Your task to perform on an android device: open app "Indeed Job Search" (install if not already installed) and enter user name: "quixotic@inbox.com" and password: "microphones" Image 0: 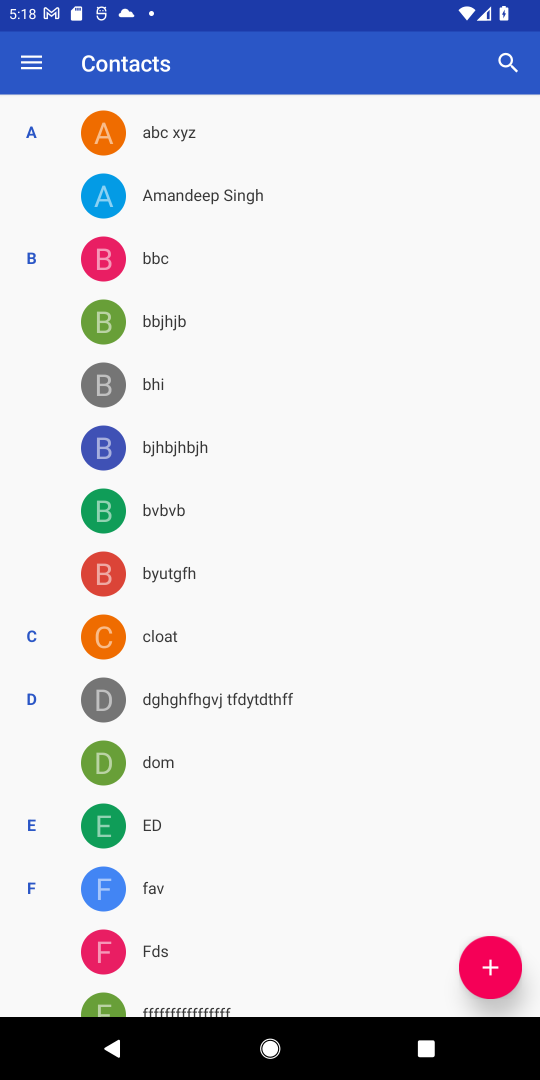
Step 0: press home button
Your task to perform on an android device: open app "Indeed Job Search" (install if not already installed) and enter user name: "quixotic@inbox.com" and password: "microphones" Image 1: 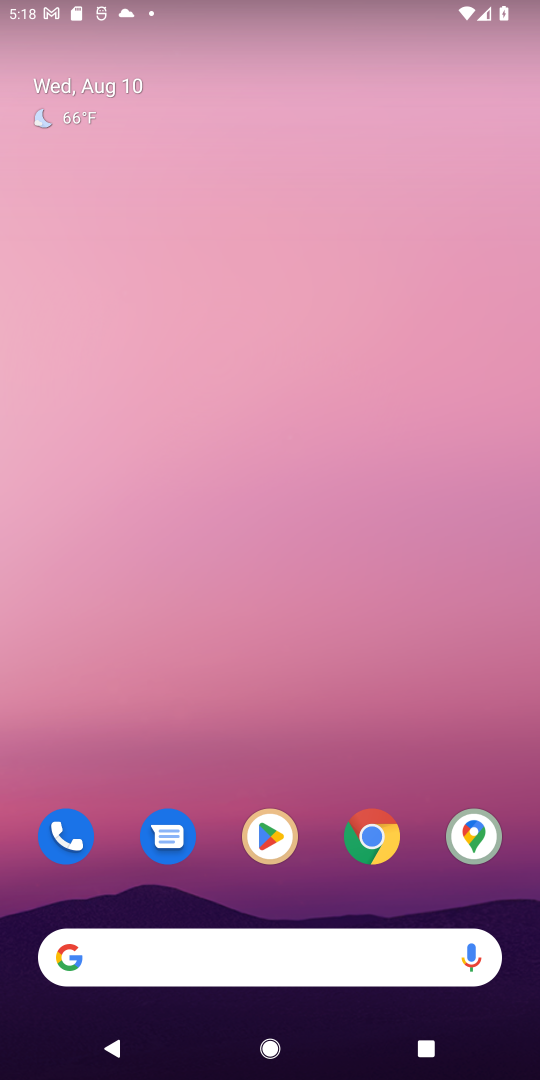
Step 1: drag from (287, 922) to (293, 240)
Your task to perform on an android device: open app "Indeed Job Search" (install if not already installed) and enter user name: "quixotic@inbox.com" and password: "microphones" Image 2: 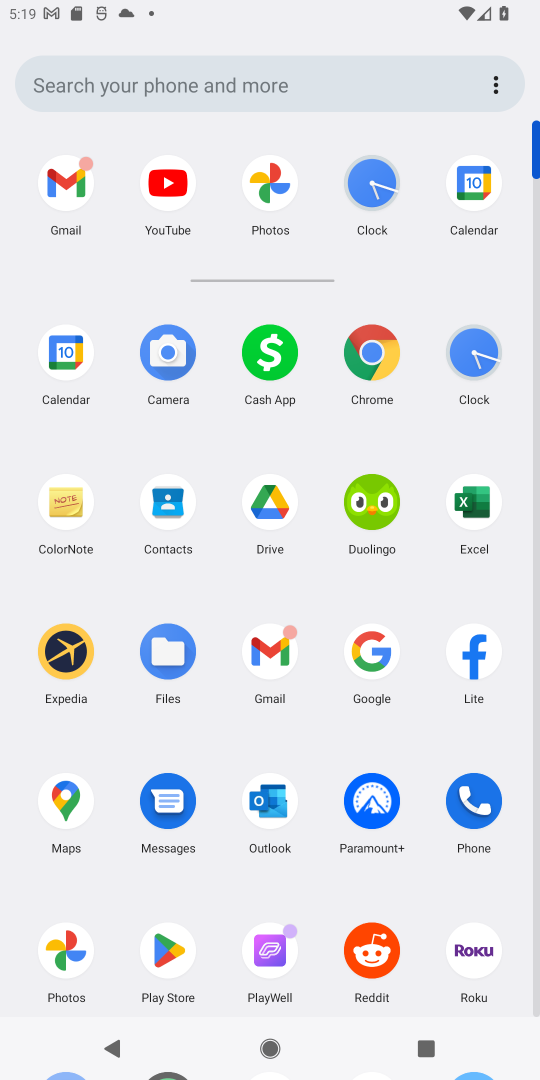
Step 2: click (163, 961)
Your task to perform on an android device: open app "Indeed Job Search" (install if not already installed) and enter user name: "quixotic@inbox.com" and password: "microphones" Image 3: 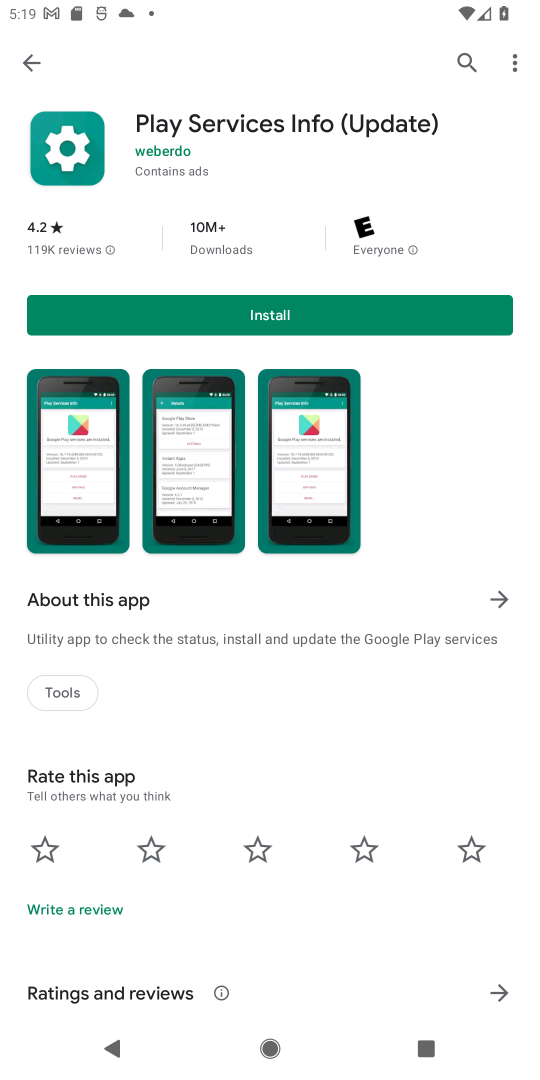
Step 3: click (27, 58)
Your task to perform on an android device: open app "Indeed Job Search" (install if not already installed) and enter user name: "quixotic@inbox.com" and password: "microphones" Image 4: 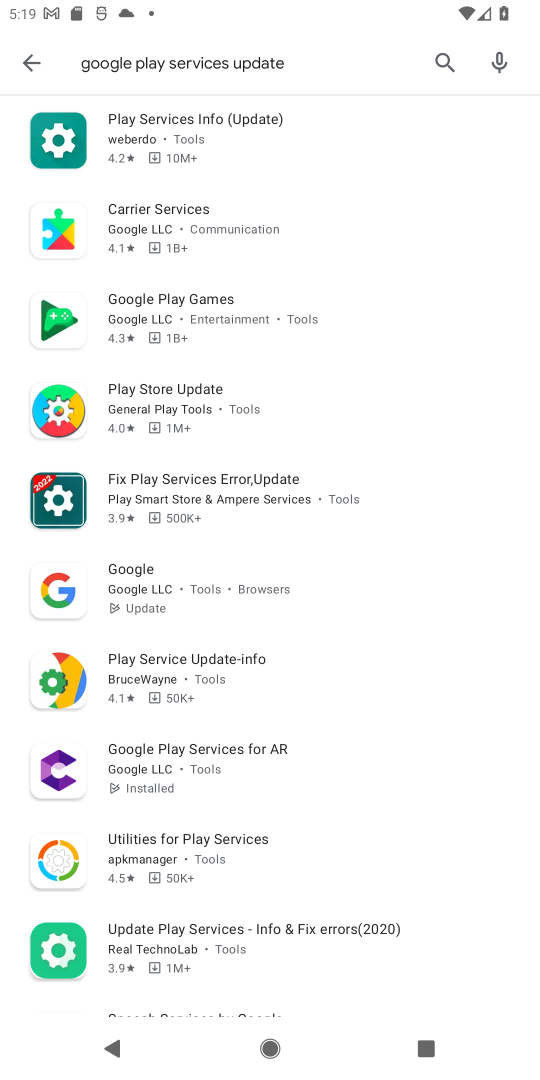
Step 4: click (39, 63)
Your task to perform on an android device: open app "Indeed Job Search" (install if not already installed) and enter user name: "quixotic@inbox.com" and password: "microphones" Image 5: 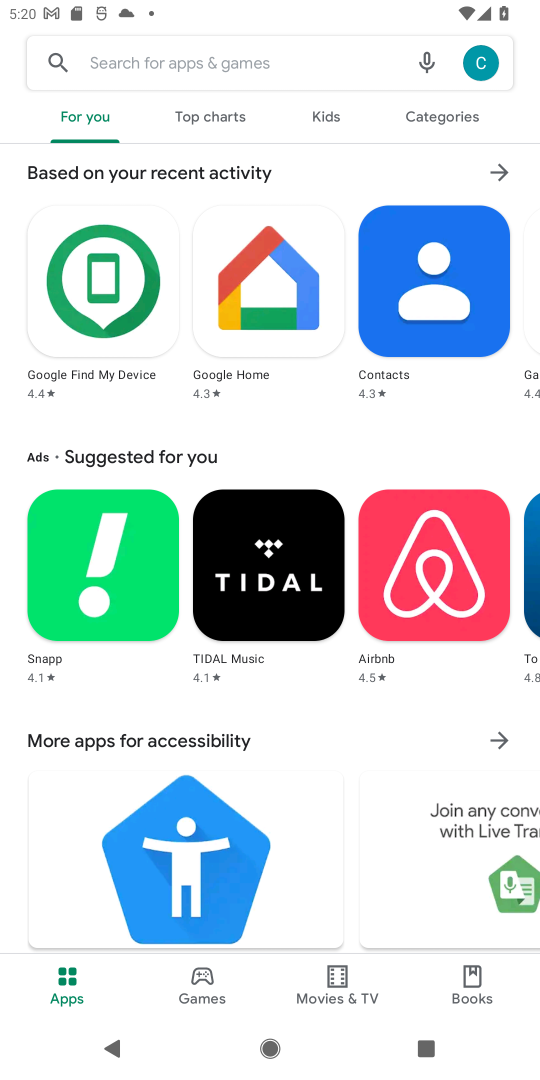
Step 5: click (328, 54)
Your task to perform on an android device: open app "Indeed Job Search" (install if not already installed) and enter user name: "quixotic@inbox.com" and password: "microphones" Image 6: 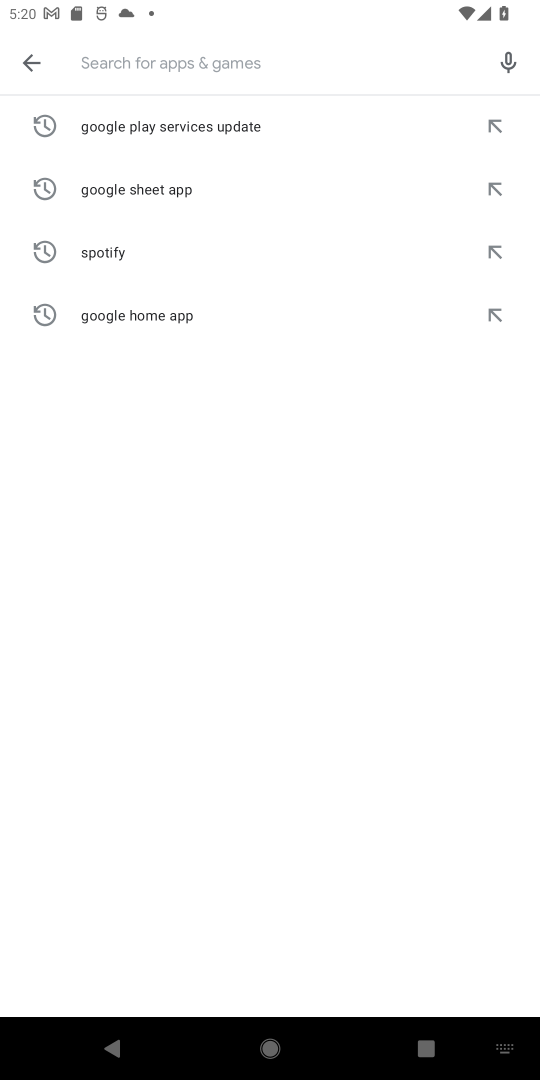
Step 6: type ""Indeed Job Search "
Your task to perform on an android device: open app "Indeed Job Search" (install if not already installed) and enter user name: "quixotic@inbox.com" and password: "microphones" Image 7: 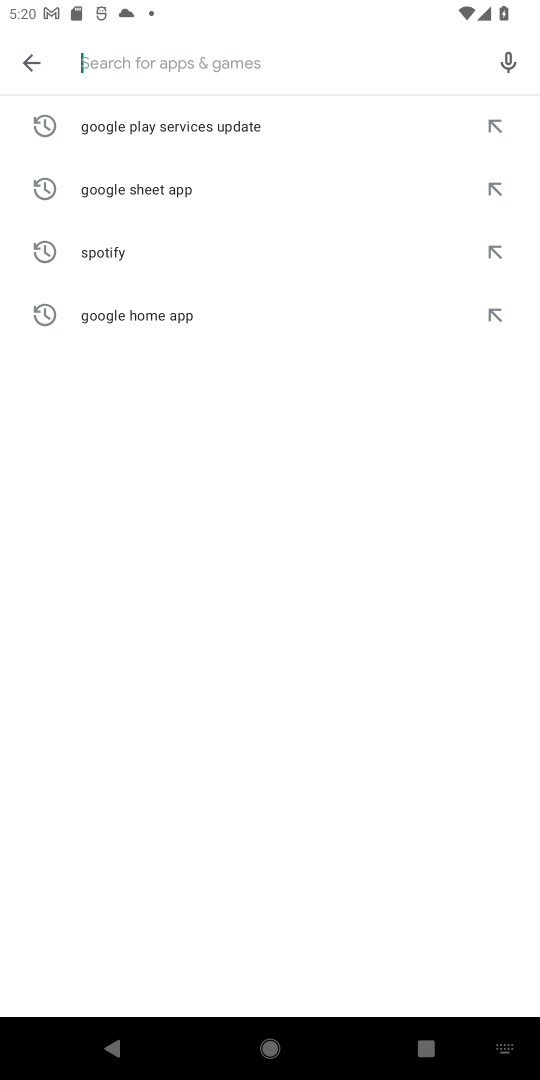
Step 7: click (167, 61)
Your task to perform on an android device: open app "Indeed Job Search" (install if not already installed) and enter user name: "quixotic@inbox.com" and password: "microphones" Image 8: 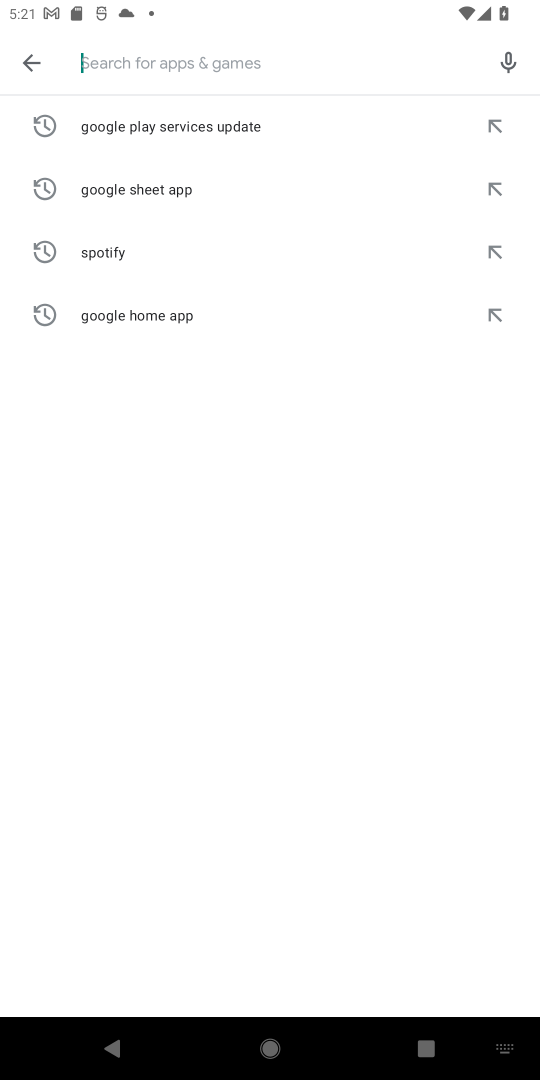
Step 8: type "indeed job"
Your task to perform on an android device: open app "Indeed Job Search" (install if not already installed) and enter user name: "quixotic@inbox.com" and password: "microphones" Image 9: 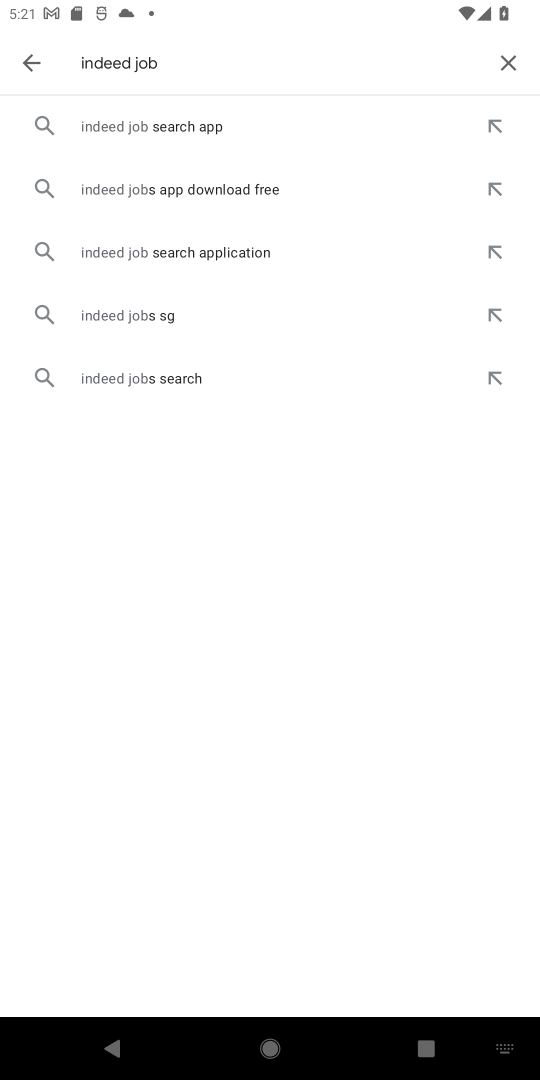
Step 9: click (197, 123)
Your task to perform on an android device: open app "Indeed Job Search" (install if not already installed) and enter user name: "quixotic@inbox.com" and password: "microphones" Image 10: 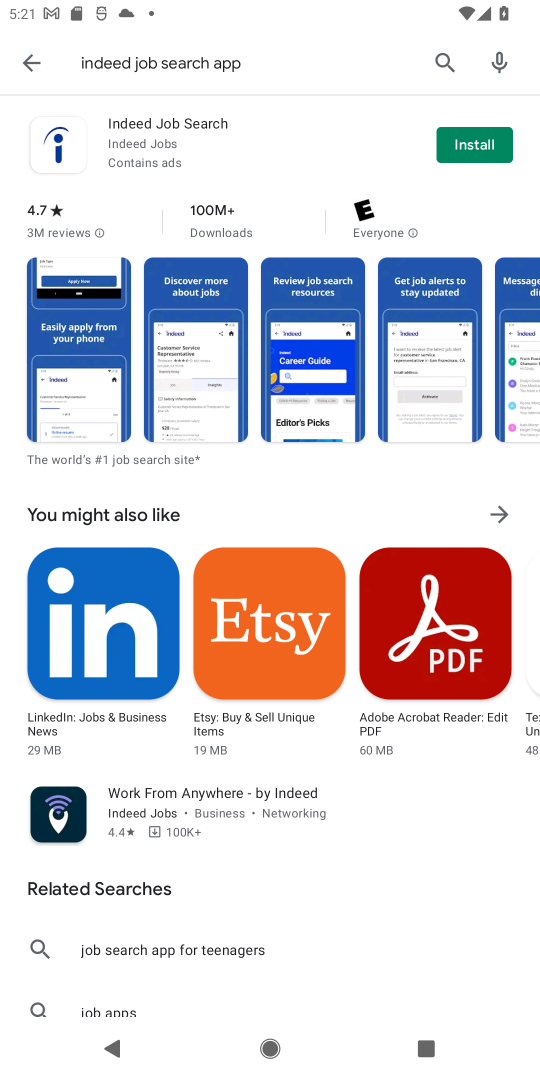
Step 10: click (476, 139)
Your task to perform on an android device: open app "Indeed Job Search" (install if not already installed) and enter user name: "quixotic@inbox.com" and password: "microphones" Image 11: 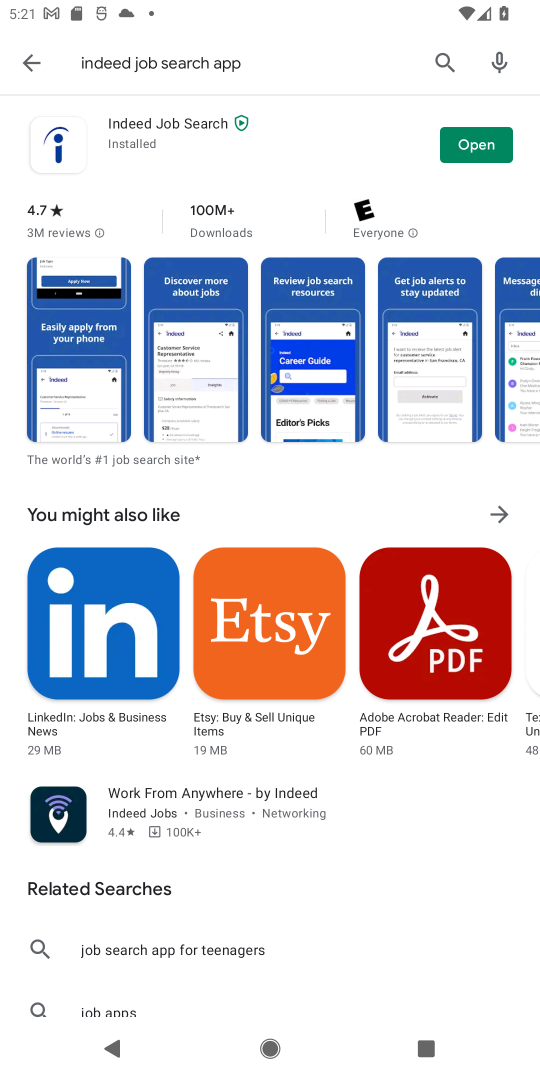
Step 11: click (476, 139)
Your task to perform on an android device: open app "Indeed Job Search" (install if not already installed) and enter user name: "quixotic@inbox.com" and password: "microphones" Image 12: 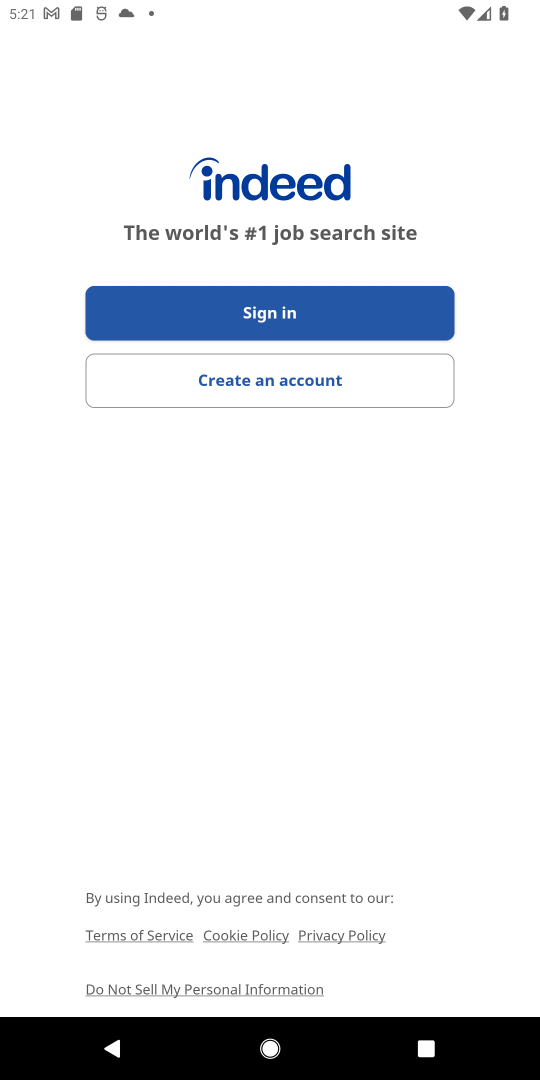
Step 12: click (356, 298)
Your task to perform on an android device: open app "Indeed Job Search" (install if not already installed) and enter user name: "quixotic@inbox.com" and password: "microphones" Image 13: 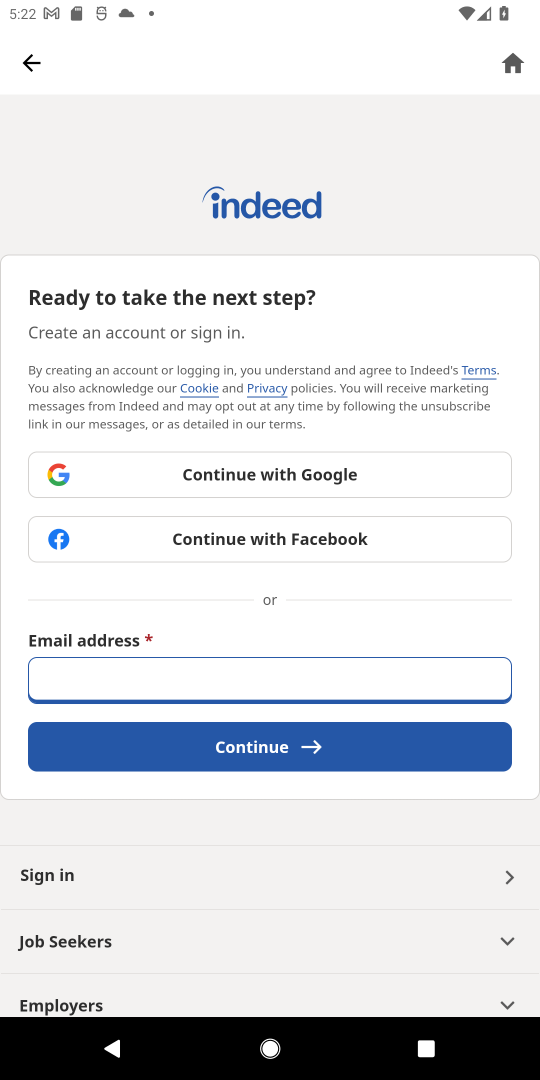
Step 13: click (160, 669)
Your task to perform on an android device: open app "Indeed Job Search" (install if not already installed) and enter user name: "quixotic@inbox.com" and password: "microphones" Image 14: 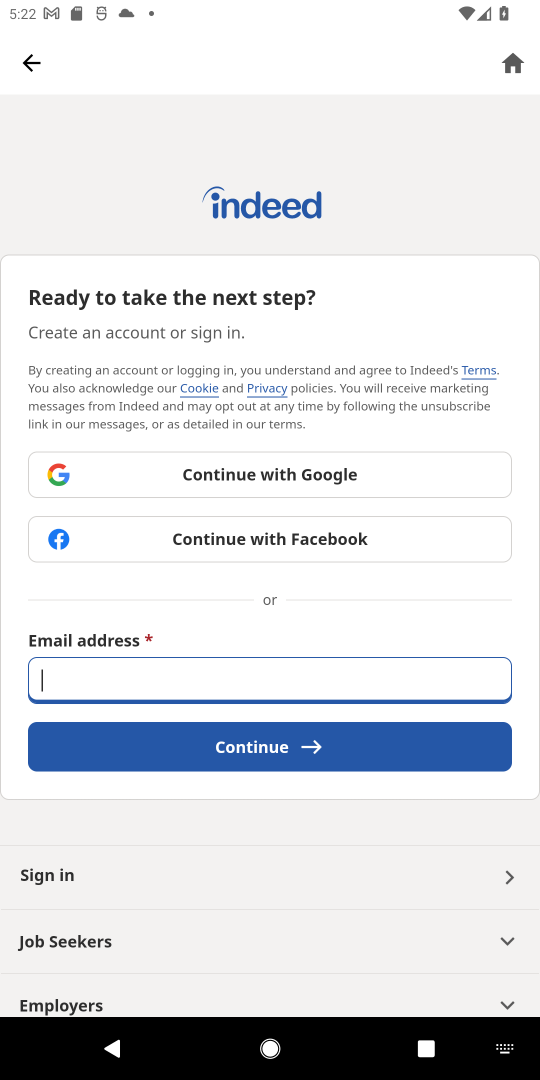
Step 14: type "quixotic@inbox.com "
Your task to perform on an android device: open app "Indeed Job Search" (install if not already installed) and enter user name: "quixotic@inbox.com" and password: "microphones" Image 15: 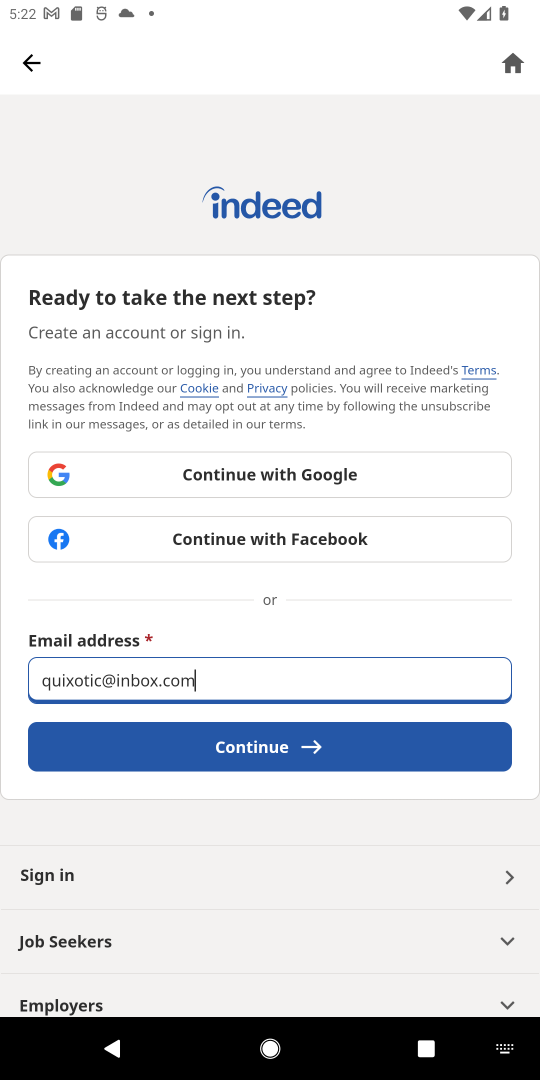
Step 15: click (289, 743)
Your task to perform on an android device: open app "Indeed Job Search" (install if not already installed) and enter user name: "quixotic@inbox.com" and password: "microphones" Image 16: 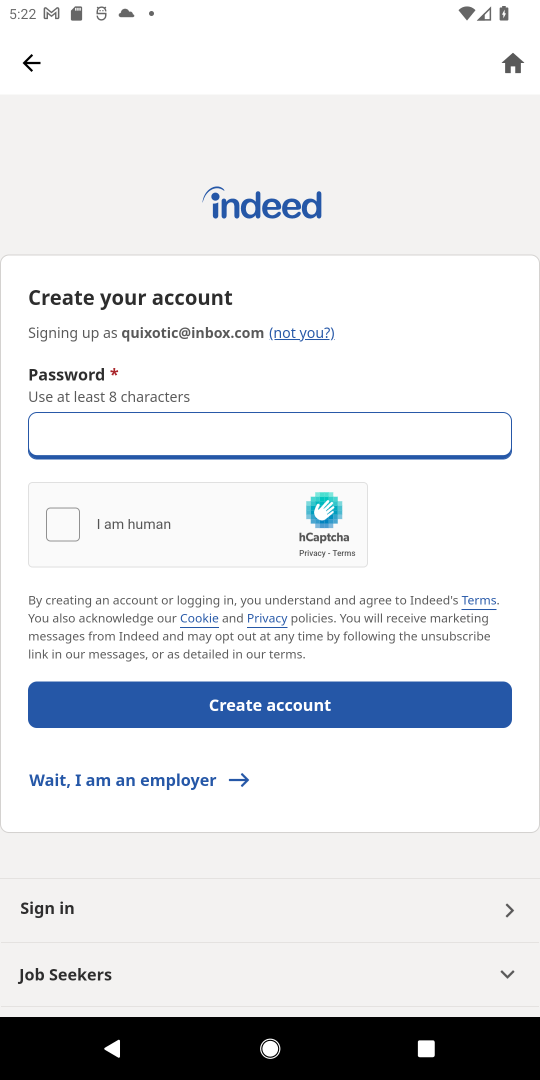
Step 16: click (147, 417)
Your task to perform on an android device: open app "Indeed Job Search" (install if not already installed) and enter user name: "quixotic@inbox.com" and password: "microphones" Image 17: 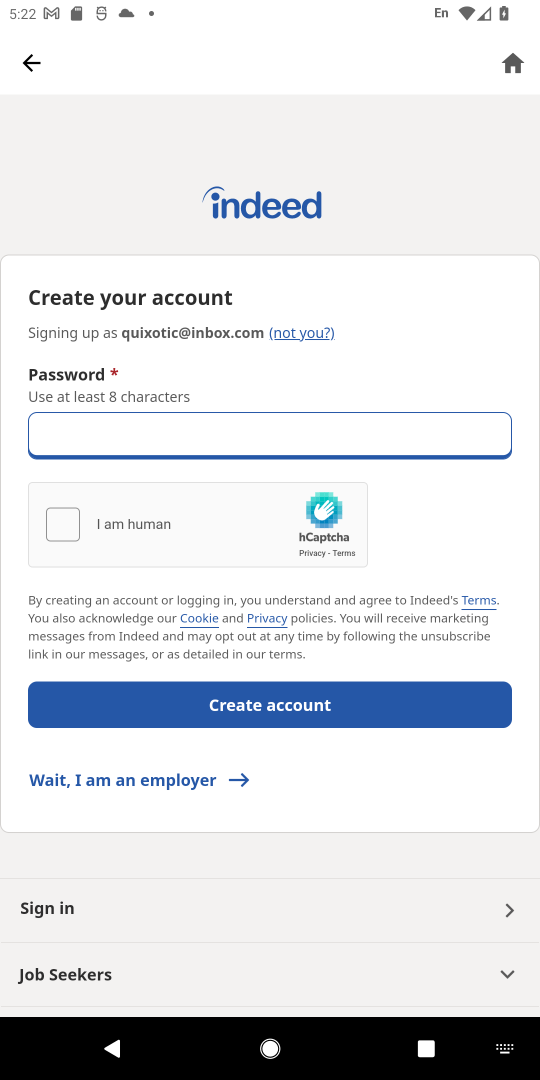
Step 17: type "microphones "
Your task to perform on an android device: open app "Indeed Job Search" (install if not already installed) and enter user name: "quixotic@inbox.com" and password: "microphones" Image 18: 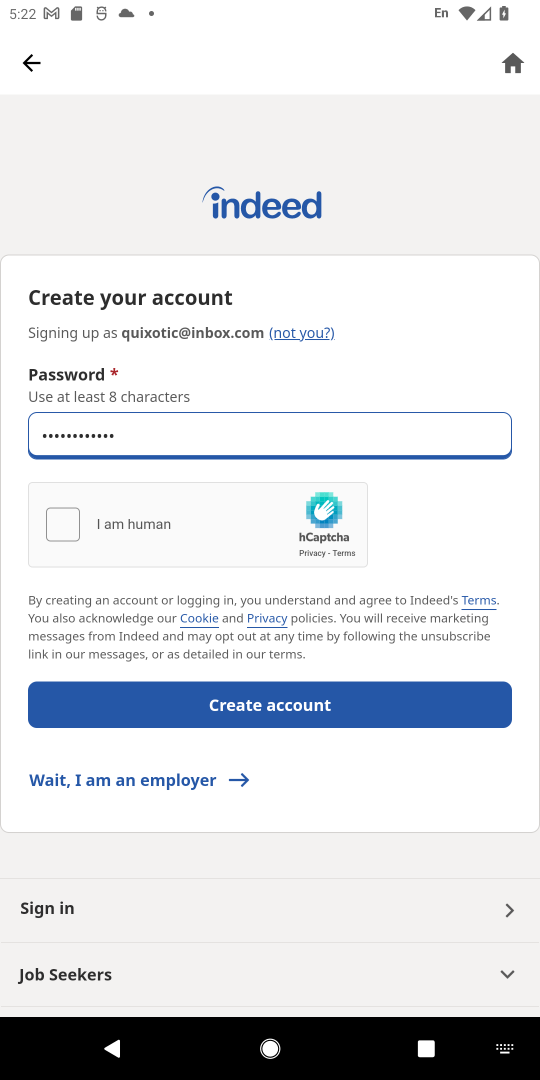
Step 18: click (86, 511)
Your task to perform on an android device: open app "Indeed Job Search" (install if not already installed) and enter user name: "quixotic@inbox.com" and password: "microphones" Image 19: 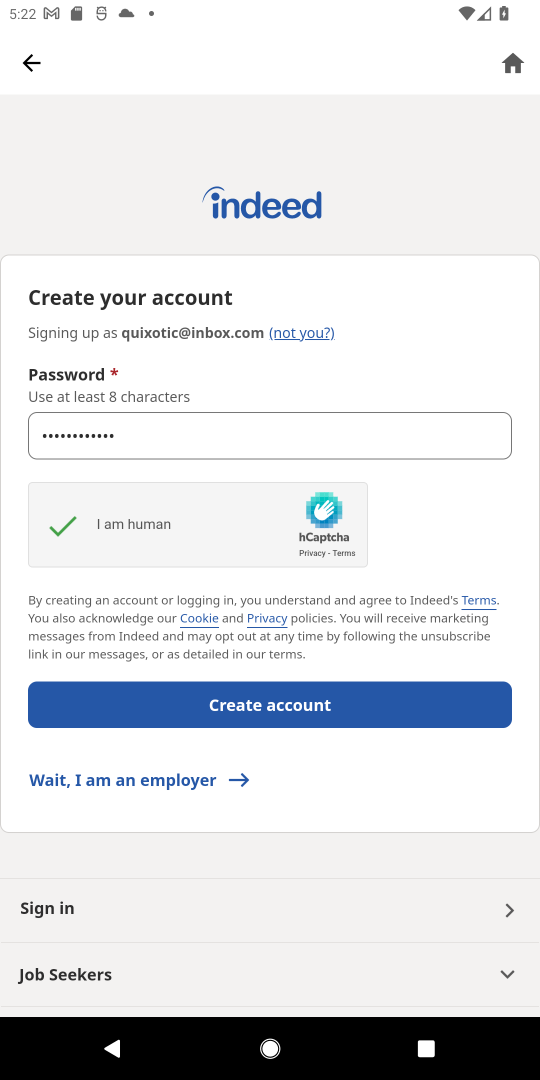
Step 19: task complete